Your task to perform on an android device: open the mobile data screen to see how much data has been used Image 0: 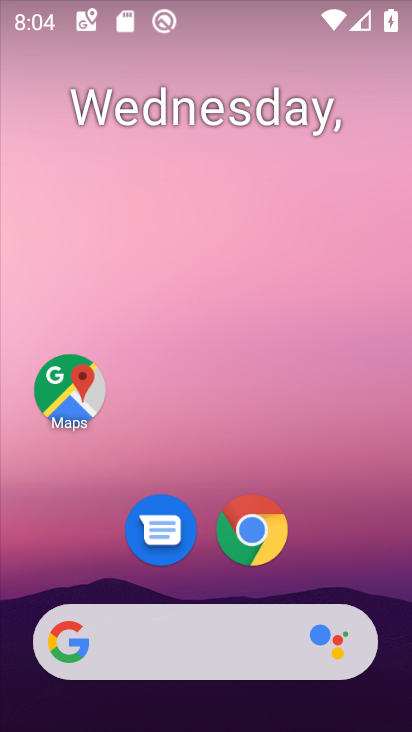
Step 0: drag from (396, 629) to (277, 62)
Your task to perform on an android device: open the mobile data screen to see how much data has been used Image 1: 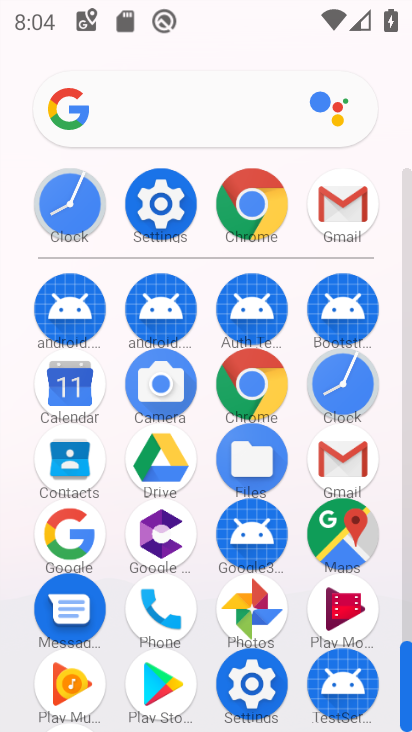
Step 1: click (258, 680)
Your task to perform on an android device: open the mobile data screen to see how much data has been used Image 2: 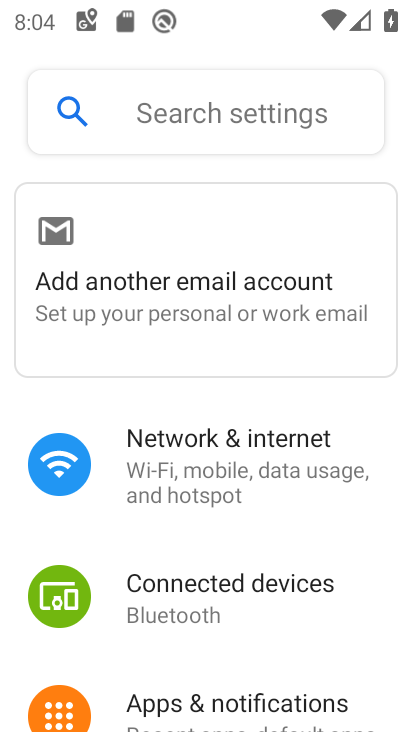
Step 2: drag from (229, 623) to (252, 359)
Your task to perform on an android device: open the mobile data screen to see how much data has been used Image 3: 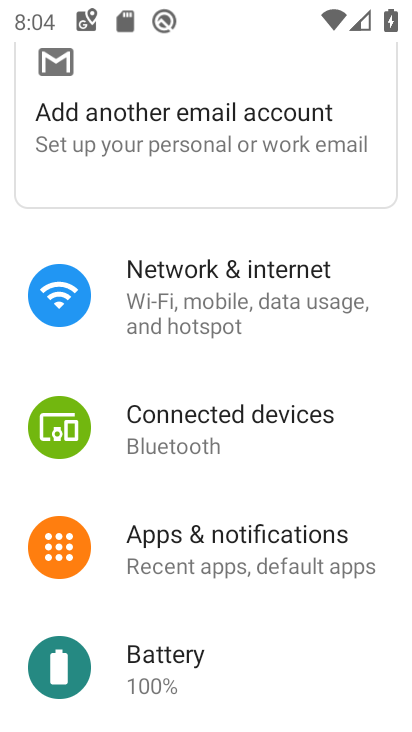
Step 3: click (184, 294)
Your task to perform on an android device: open the mobile data screen to see how much data has been used Image 4: 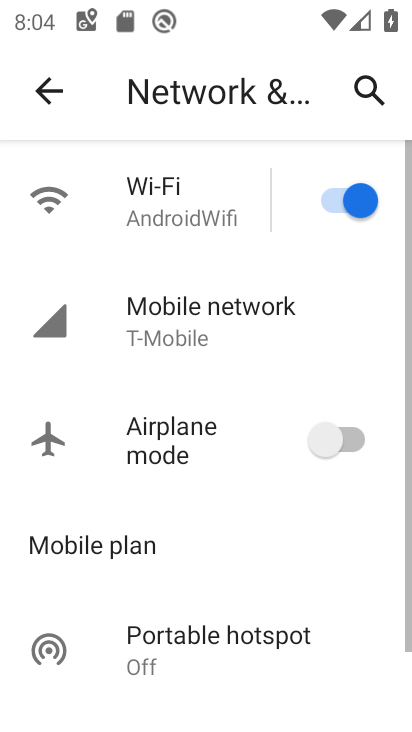
Step 4: click (184, 294)
Your task to perform on an android device: open the mobile data screen to see how much data has been used Image 5: 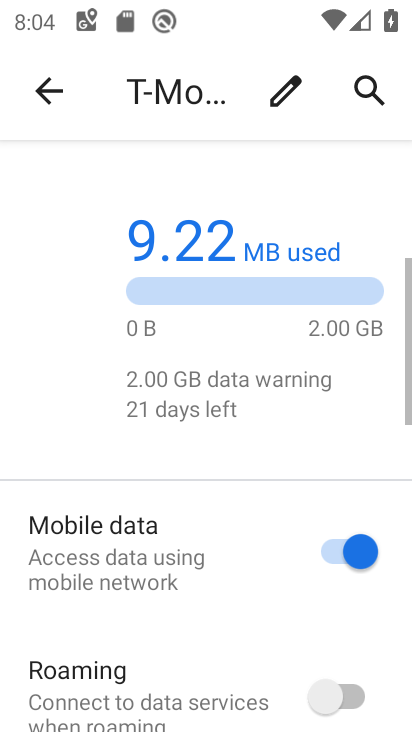
Step 5: task complete